Your task to perform on an android device: change the clock display to digital Image 0: 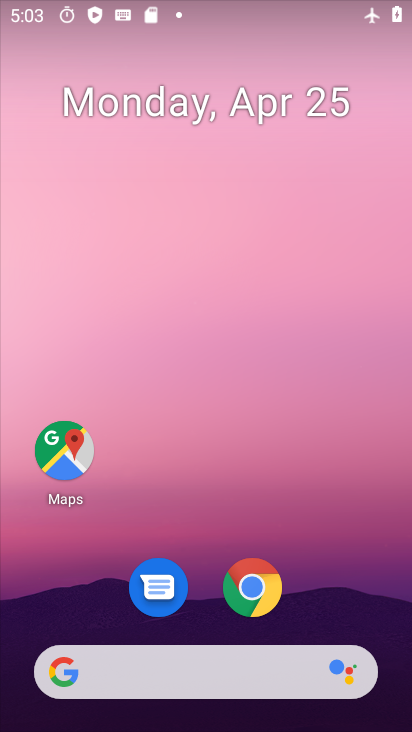
Step 0: drag from (339, 507) to (292, 3)
Your task to perform on an android device: change the clock display to digital Image 1: 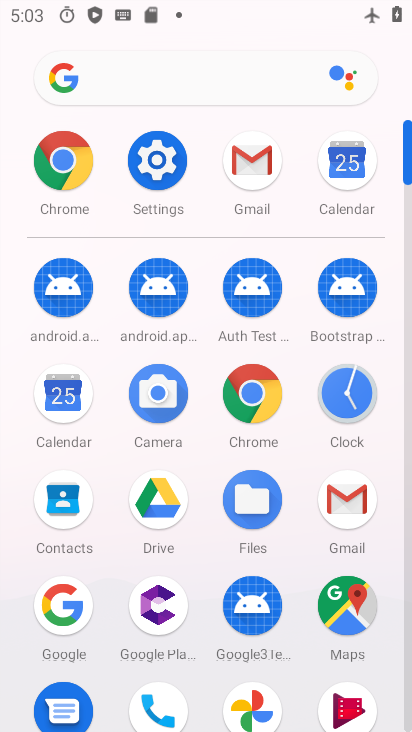
Step 1: click (363, 382)
Your task to perform on an android device: change the clock display to digital Image 2: 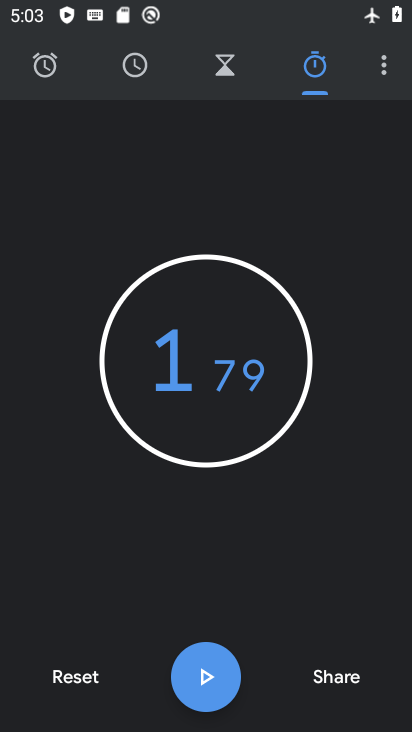
Step 2: click (387, 61)
Your task to perform on an android device: change the clock display to digital Image 3: 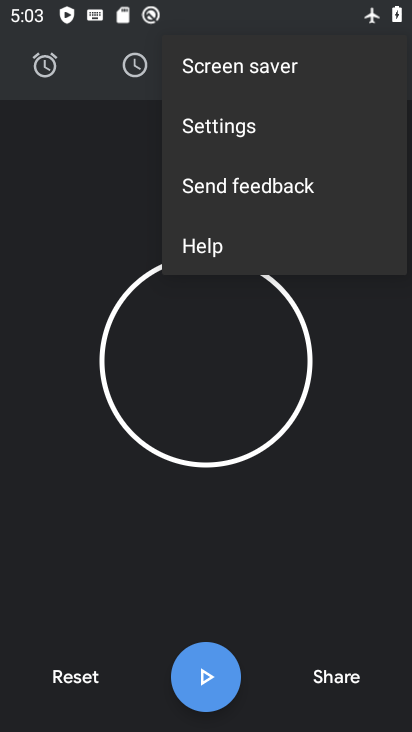
Step 3: click (261, 142)
Your task to perform on an android device: change the clock display to digital Image 4: 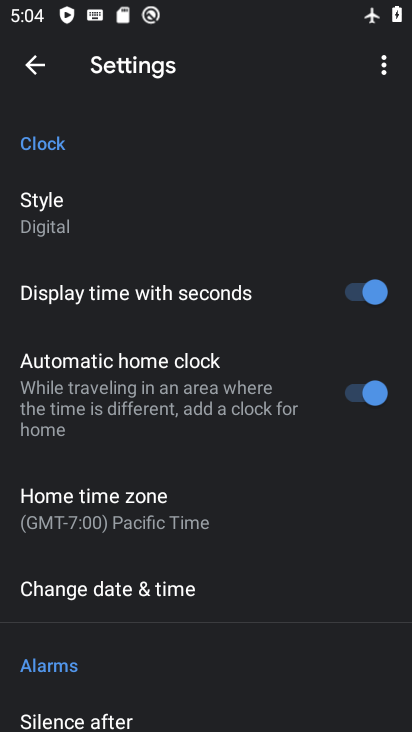
Step 4: click (19, 210)
Your task to perform on an android device: change the clock display to digital Image 5: 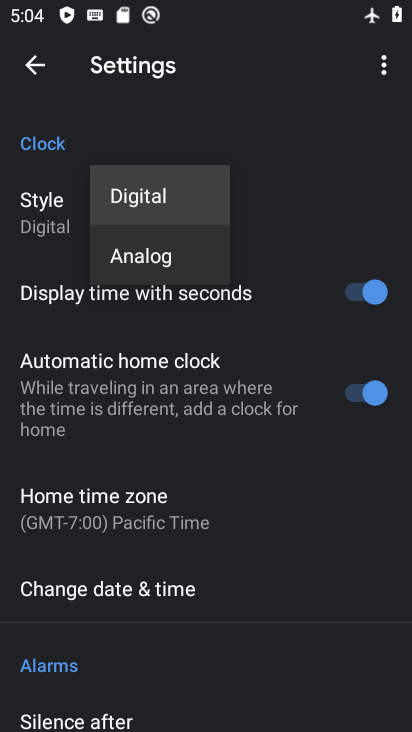
Step 5: task complete